Your task to perform on an android device: Open wifi settings Image 0: 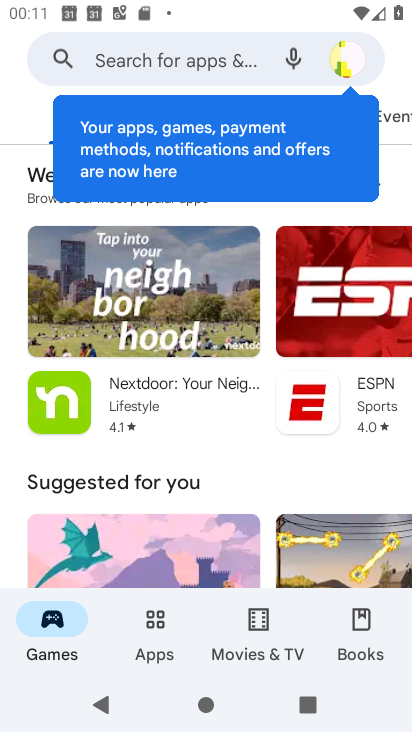
Step 0: press home button
Your task to perform on an android device: Open wifi settings Image 1: 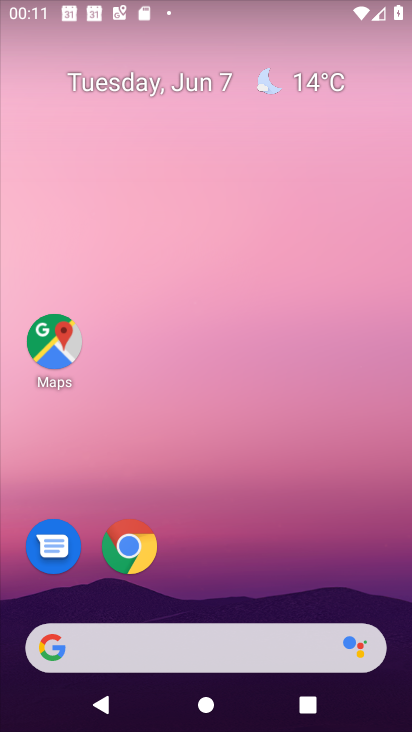
Step 1: drag from (253, 575) to (262, 119)
Your task to perform on an android device: Open wifi settings Image 2: 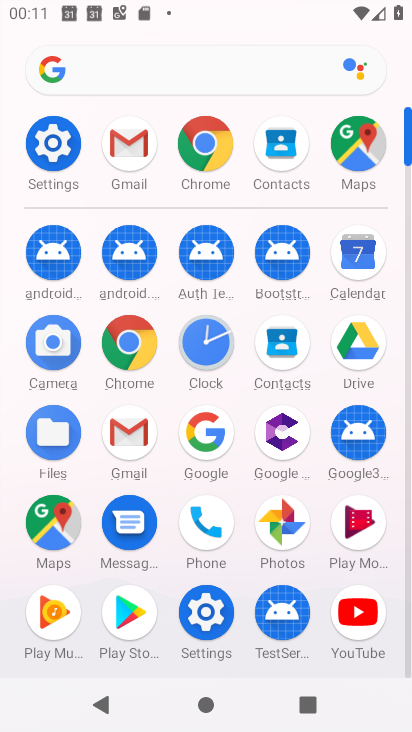
Step 2: click (52, 172)
Your task to perform on an android device: Open wifi settings Image 3: 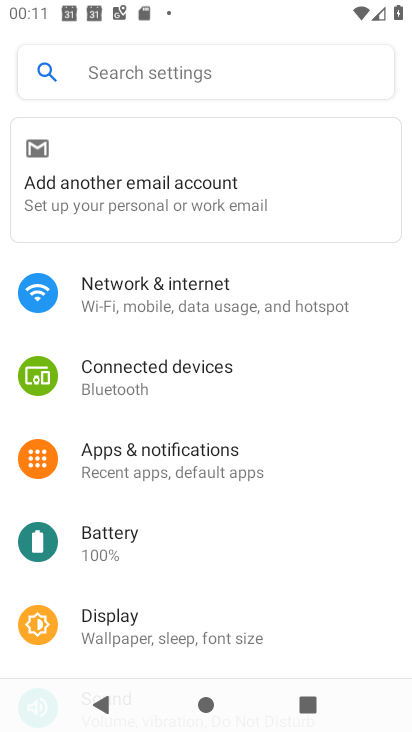
Step 3: click (222, 305)
Your task to perform on an android device: Open wifi settings Image 4: 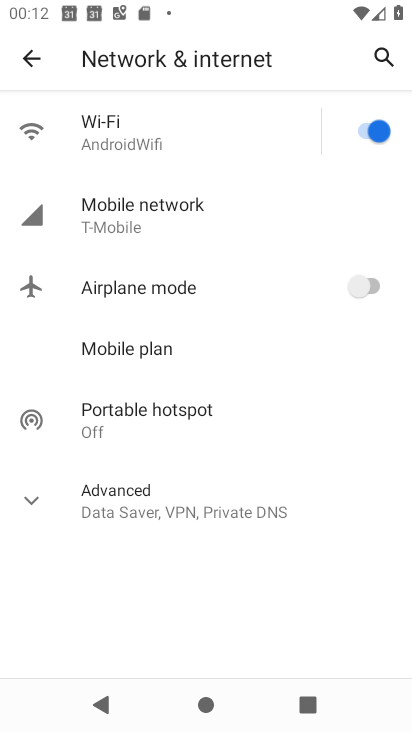
Step 4: click (160, 155)
Your task to perform on an android device: Open wifi settings Image 5: 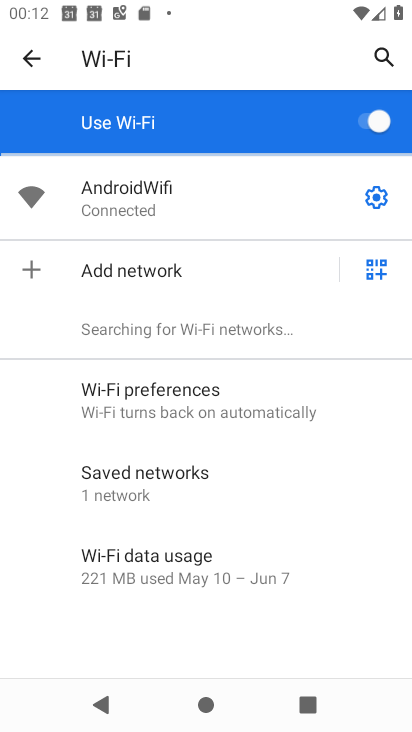
Step 5: task complete